Your task to perform on an android device: Open Youtube and go to "Your channel" Image 0: 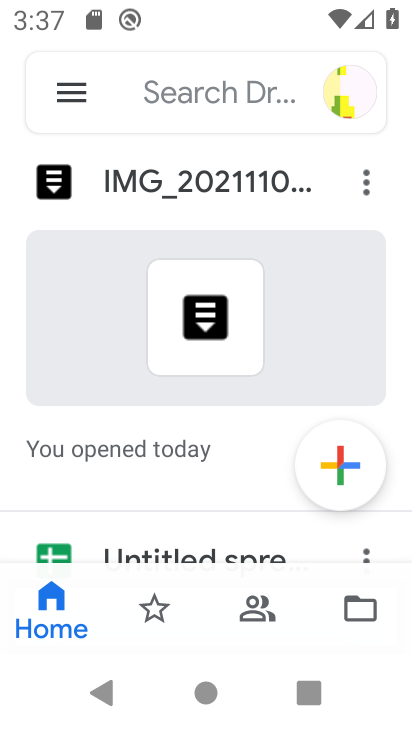
Step 0: press home button
Your task to perform on an android device: Open Youtube and go to "Your channel" Image 1: 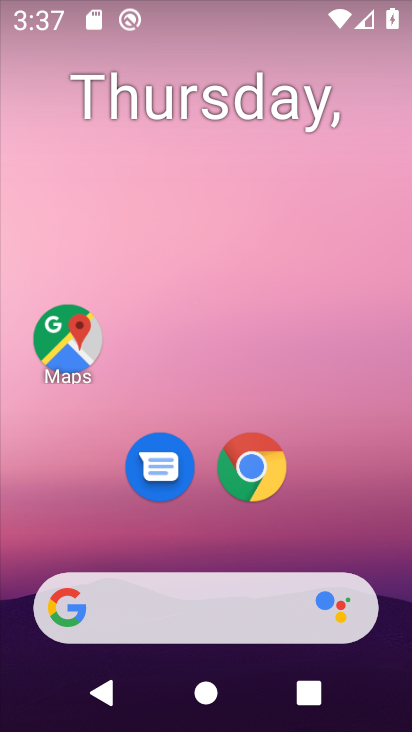
Step 1: drag from (171, 511) to (310, 32)
Your task to perform on an android device: Open Youtube and go to "Your channel" Image 2: 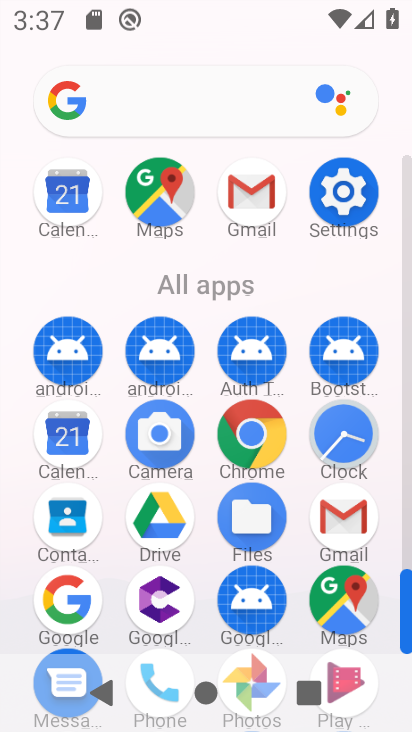
Step 2: drag from (203, 586) to (267, 266)
Your task to perform on an android device: Open Youtube and go to "Your channel" Image 3: 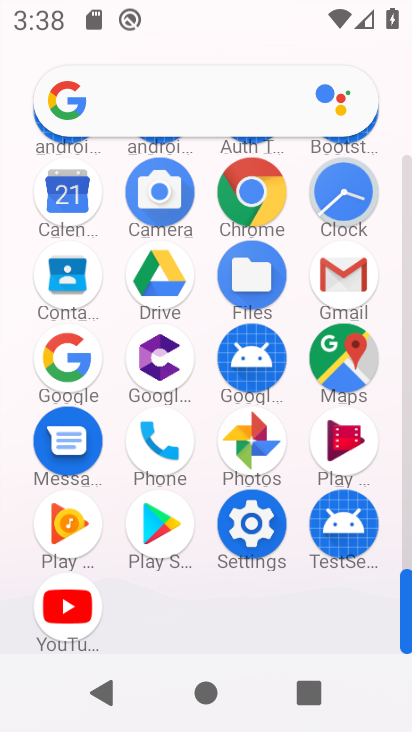
Step 3: click (76, 626)
Your task to perform on an android device: Open Youtube and go to "Your channel" Image 4: 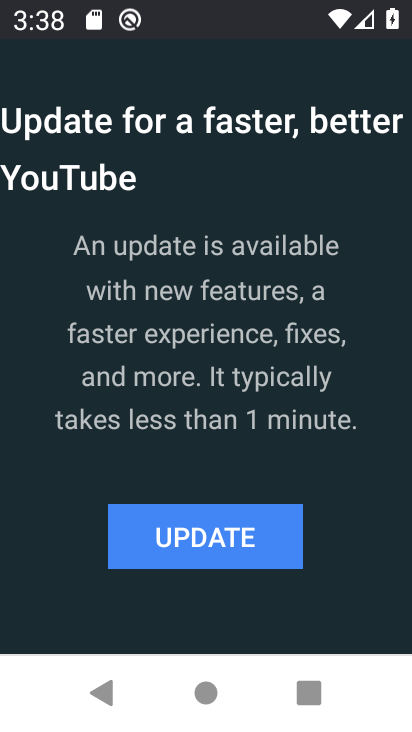
Step 4: click (240, 536)
Your task to perform on an android device: Open Youtube and go to "Your channel" Image 5: 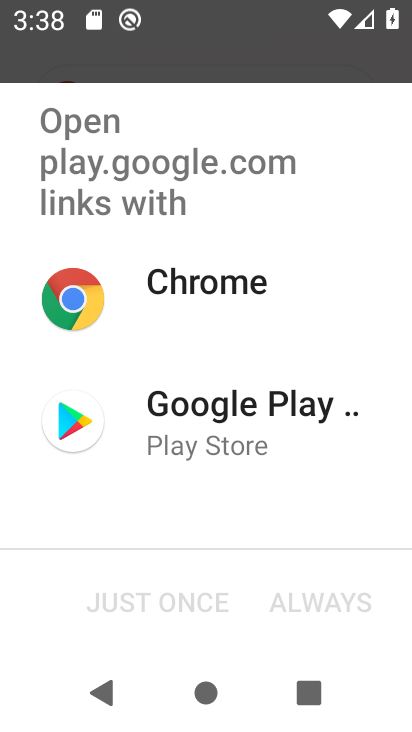
Step 5: click (162, 423)
Your task to perform on an android device: Open Youtube and go to "Your channel" Image 6: 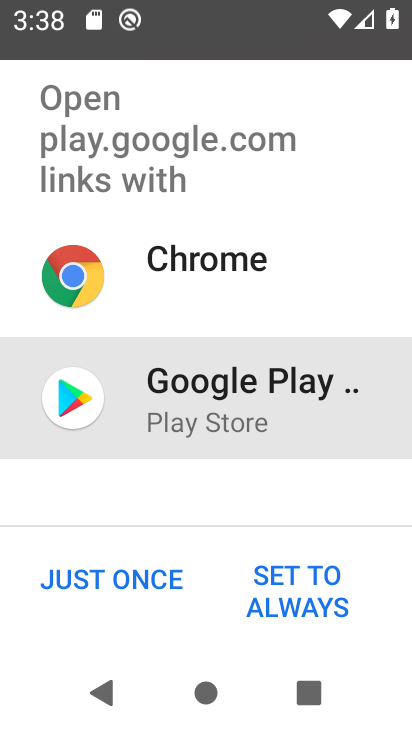
Step 6: click (106, 591)
Your task to perform on an android device: Open Youtube and go to "Your channel" Image 7: 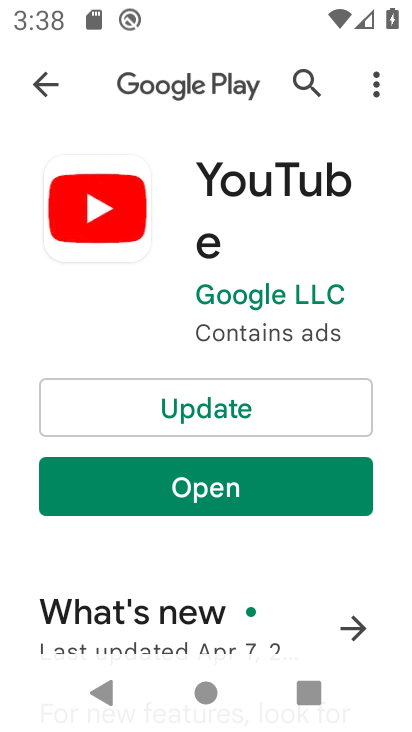
Step 7: click (234, 411)
Your task to perform on an android device: Open Youtube and go to "Your channel" Image 8: 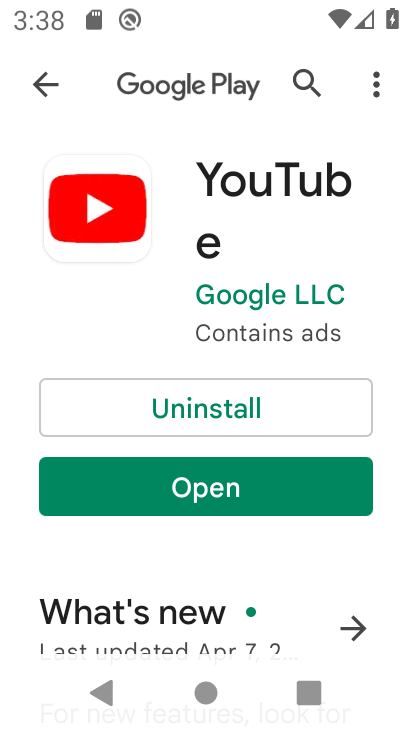
Step 8: click (229, 487)
Your task to perform on an android device: Open Youtube and go to "Your channel" Image 9: 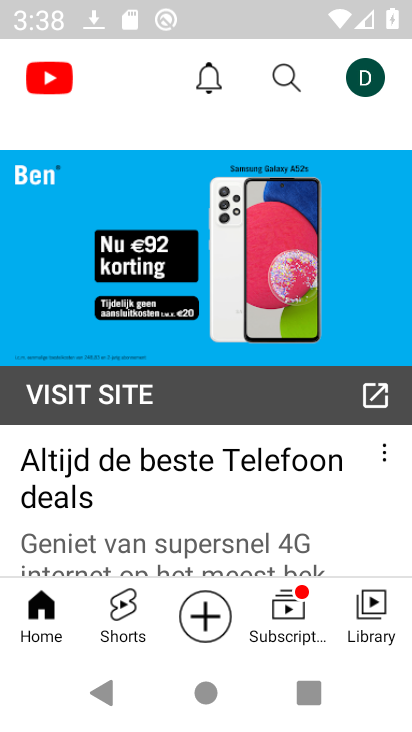
Step 9: click (372, 90)
Your task to perform on an android device: Open Youtube and go to "Your channel" Image 10: 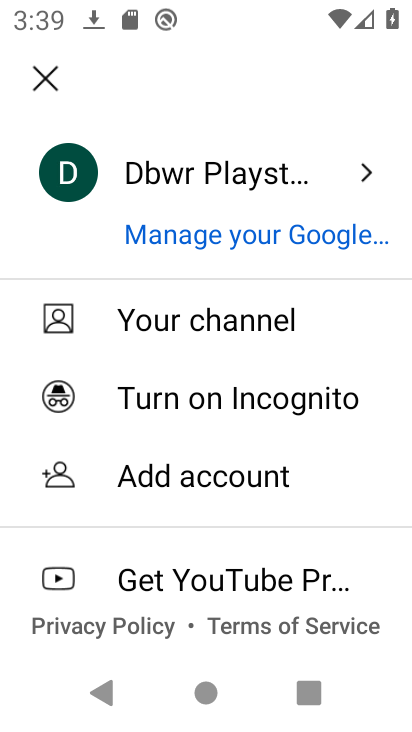
Step 10: click (245, 330)
Your task to perform on an android device: Open Youtube and go to "Your channel" Image 11: 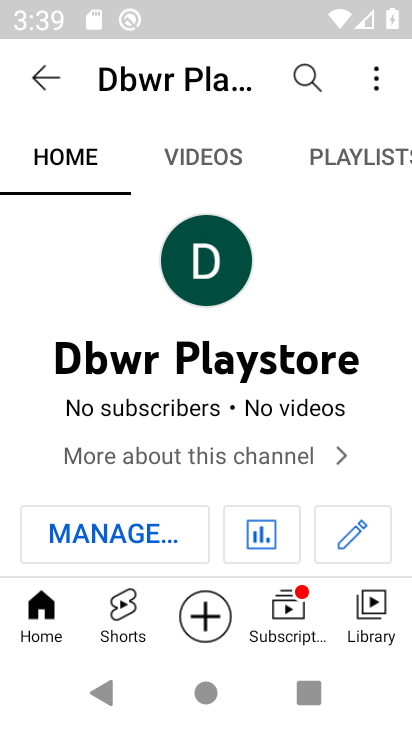
Step 11: task complete